Your task to perform on an android device: turn on wifi Image 0: 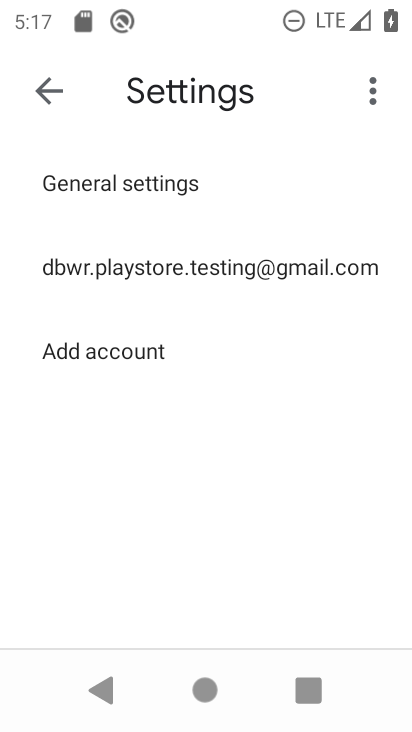
Step 0: press home button
Your task to perform on an android device: turn on wifi Image 1: 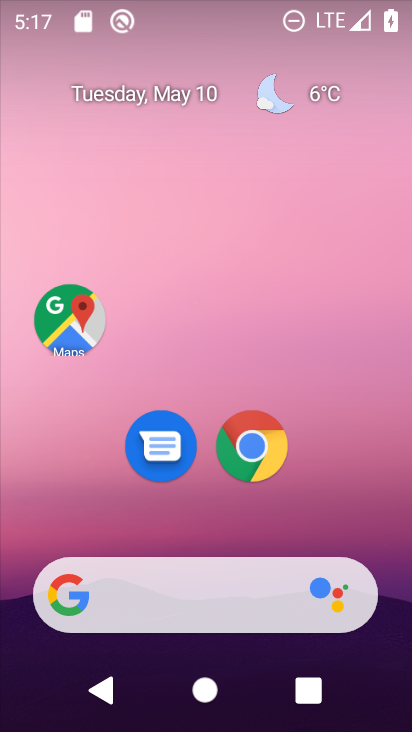
Step 1: drag from (302, 314) to (219, 52)
Your task to perform on an android device: turn on wifi Image 2: 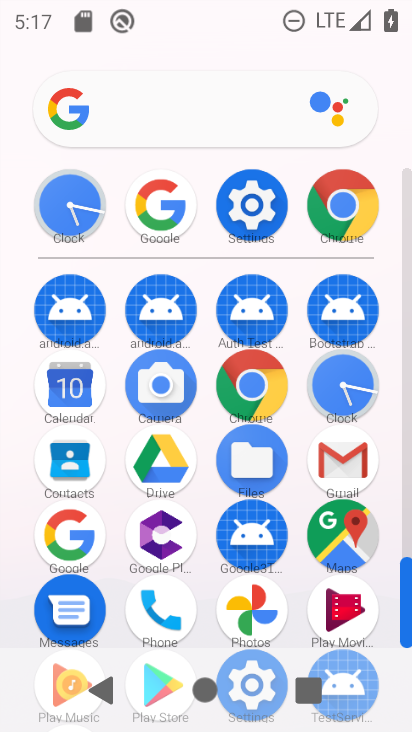
Step 2: click (253, 210)
Your task to perform on an android device: turn on wifi Image 3: 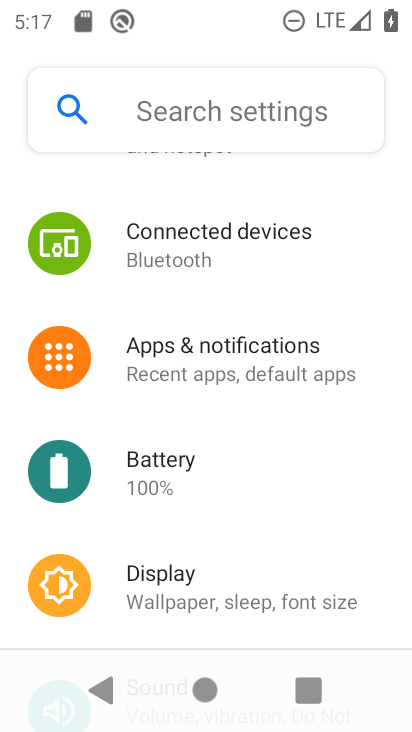
Step 3: drag from (252, 203) to (309, 684)
Your task to perform on an android device: turn on wifi Image 4: 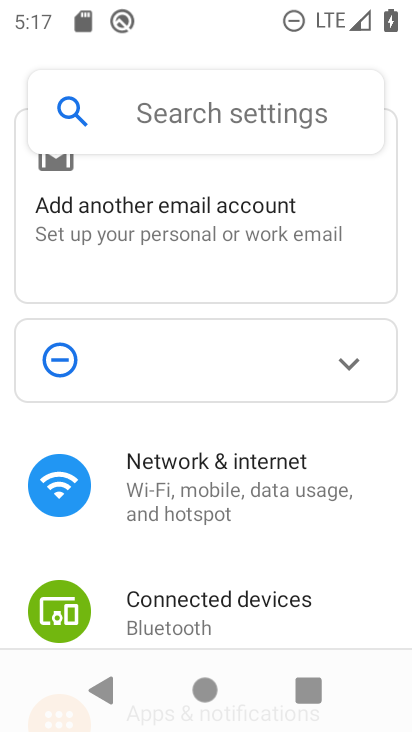
Step 4: click (206, 487)
Your task to perform on an android device: turn on wifi Image 5: 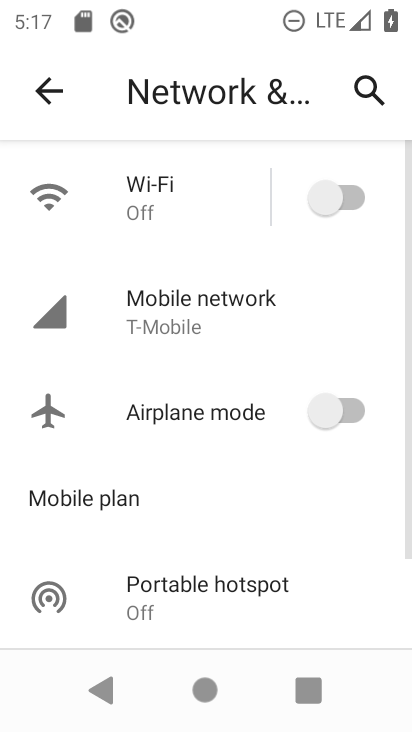
Step 5: click (337, 208)
Your task to perform on an android device: turn on wifi Image 6: 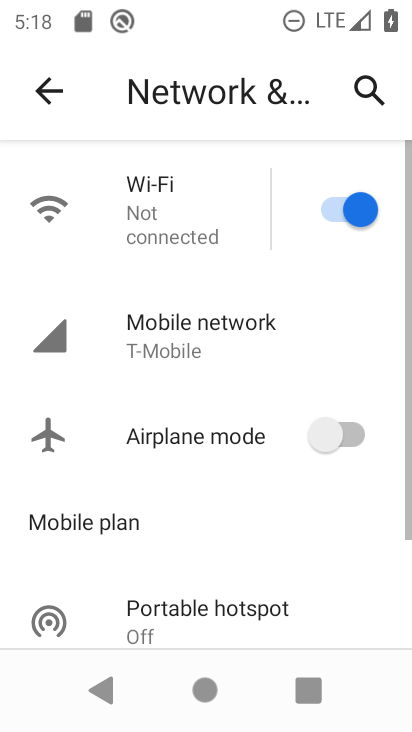
Step 6: task complete